Your task to perform on an android device: open chrome privacy settings Image 0: 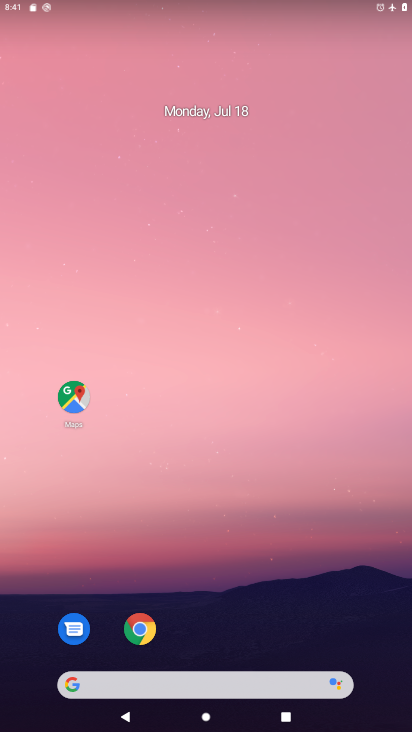
Step 0: click (147, 636)
Your task to perform on an android device: open chrome privacy settings Image 1: 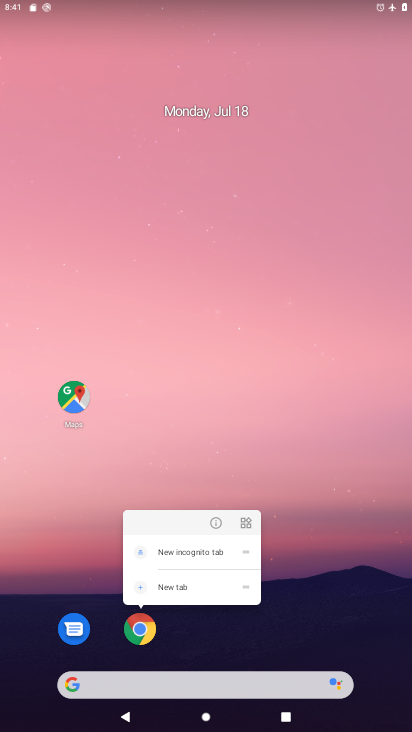
Step 1: click (156, 638)
Your task to perform on an android device: open chrome privacy settings Image 2: 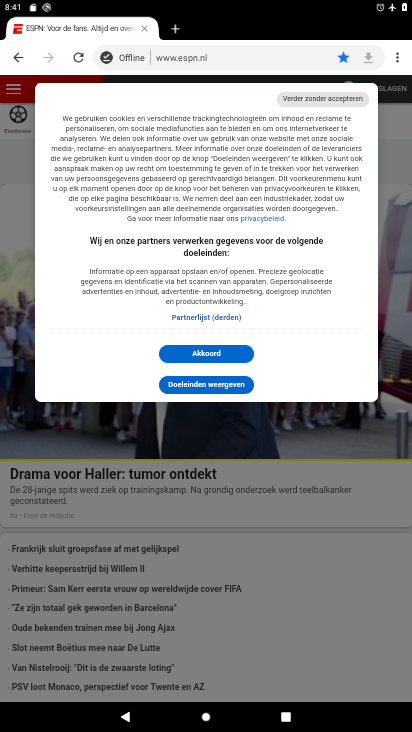
Step 2: click (390, 51)
Your task to perform on an android device: open chrome privacy settings Image 3: 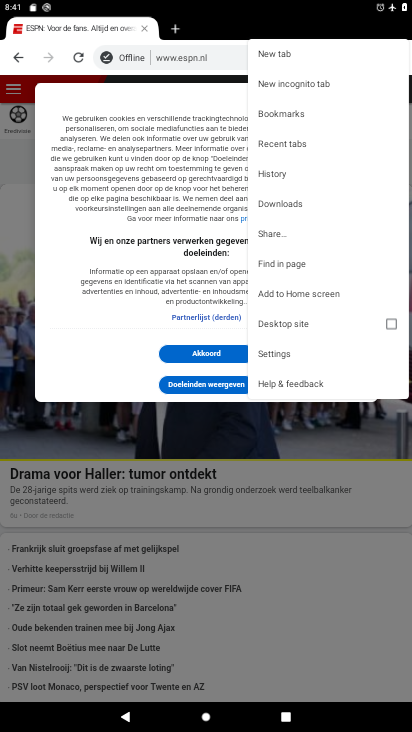
Step 3: click (278, 352)
Your task to perform on an android device: open chrome privacy settings Image 4: 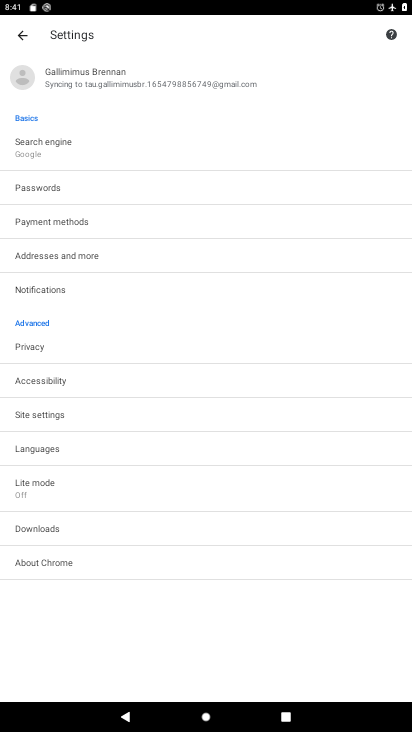
Step 4: click (35, 350)
Your task to perform on an android device: open chrome privacy settings Image 5: 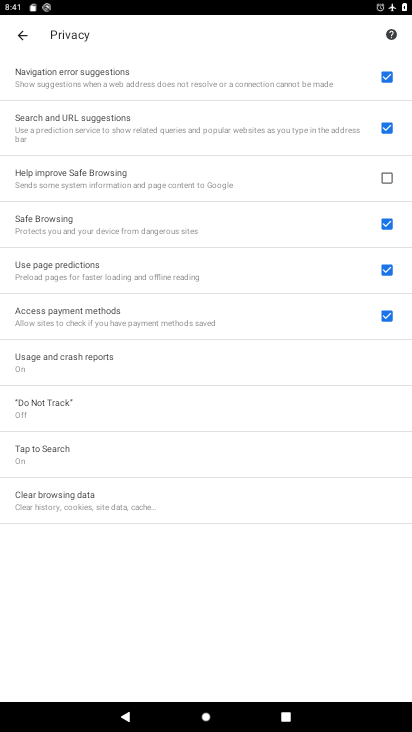
Step 5: task complete